Your task to perform on an android device: open a bookmark in the chrome app Image 0: 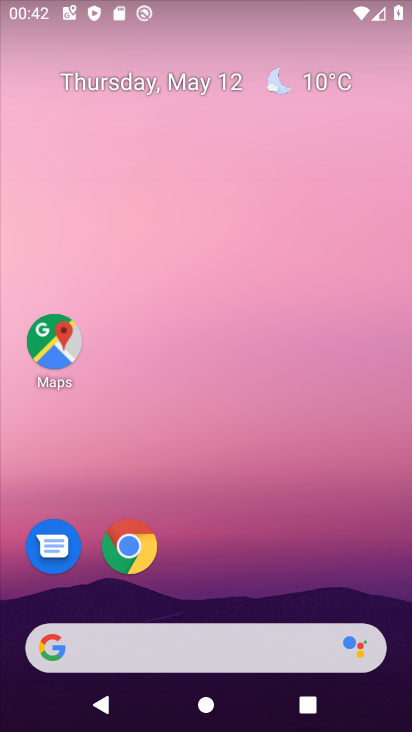
Step 0: click (123, 551)
Your task to perform on an android device: open a bookmark in the chrome app Image 1: 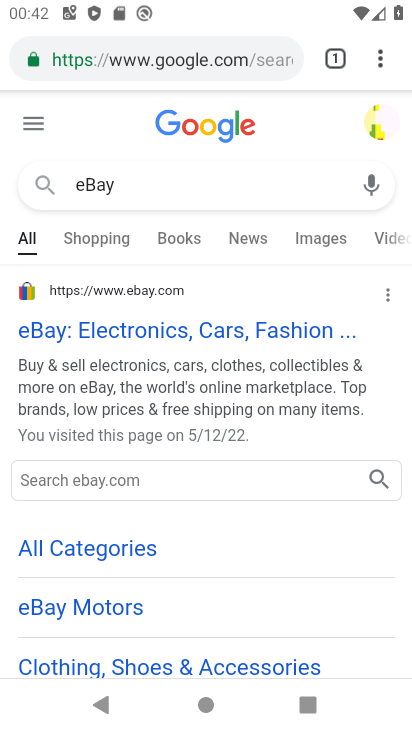
Step 1: click (382, 59)
Your task to perform on an android device: open a bookmark in the chrome app Image 2: 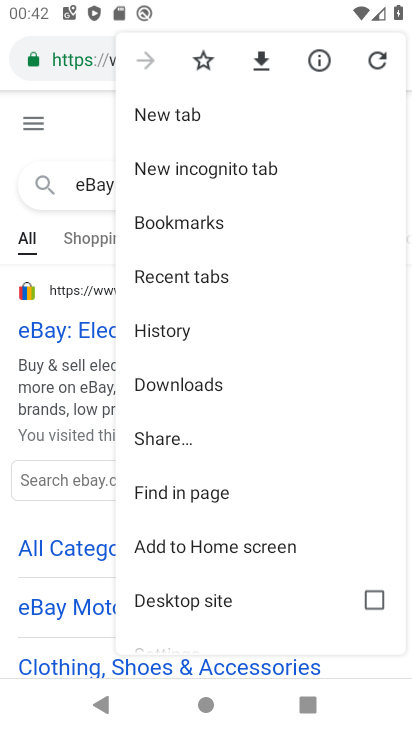
Step 2: click (205, 223)
Your task to perform on an android device: open a bookmark in the chrome app Image 3: 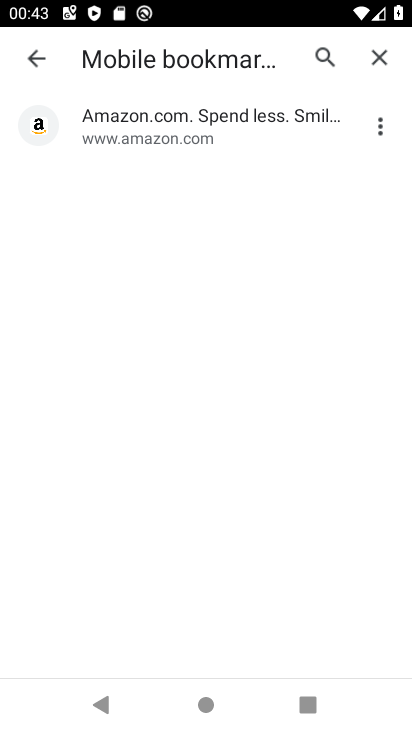
Step 3: task complete